Your task to perform on an android device: turn on improve location accuracy Image 0: 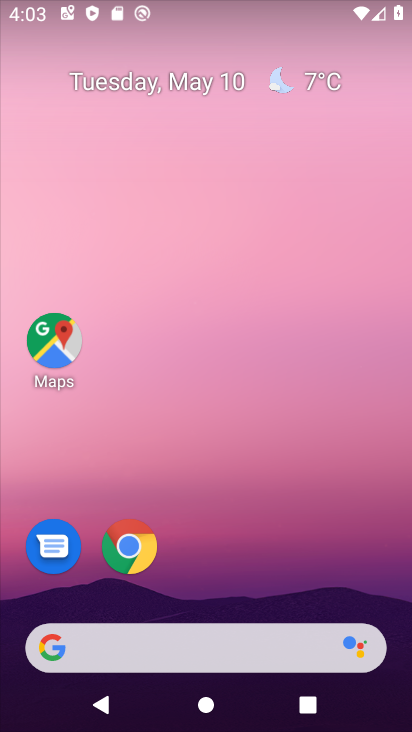
Step 0: drag from (272, 602) to (96, 120)
Your task to perform on an android device: turn on improve location accuracy Image 1: 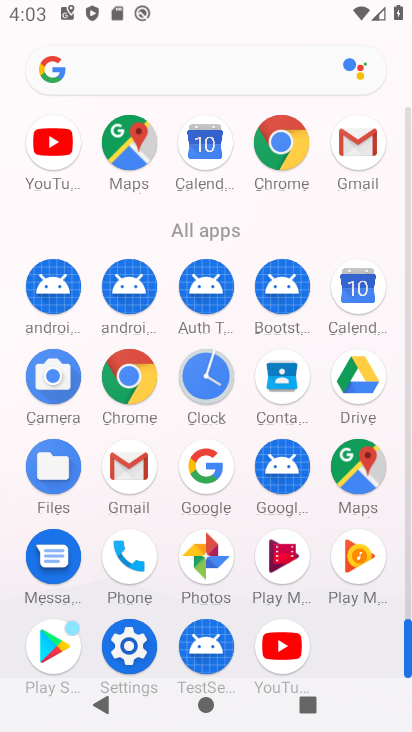
Step 1: drag from (235, 585) to (41, 156)
Your task to perform on an android device: turn on improve location accuracy Image 2: 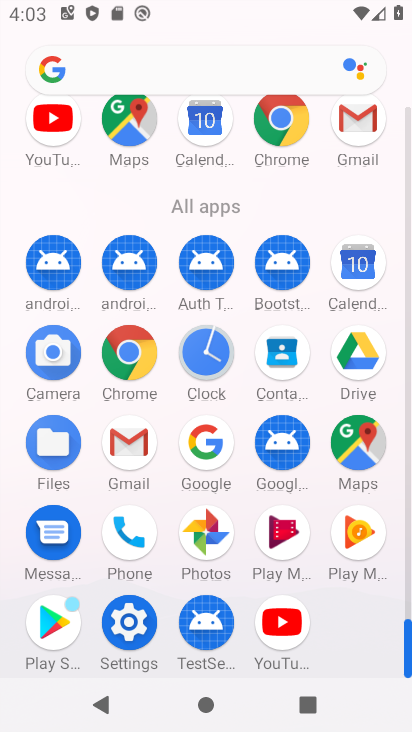
Step 2: drag from (202, 455) to (8, 11)
Your task to perform on an android device: turn on improve location accuracy Image 3: 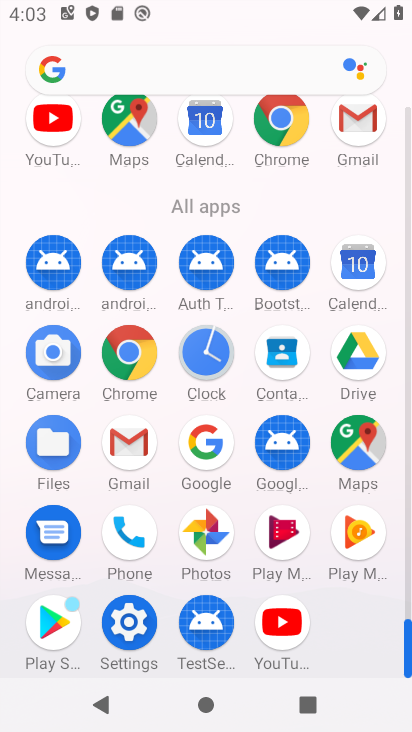
Step 3: click (118, 620)
Your task to perform on an android device: turn on improve location accuracy Image 4: 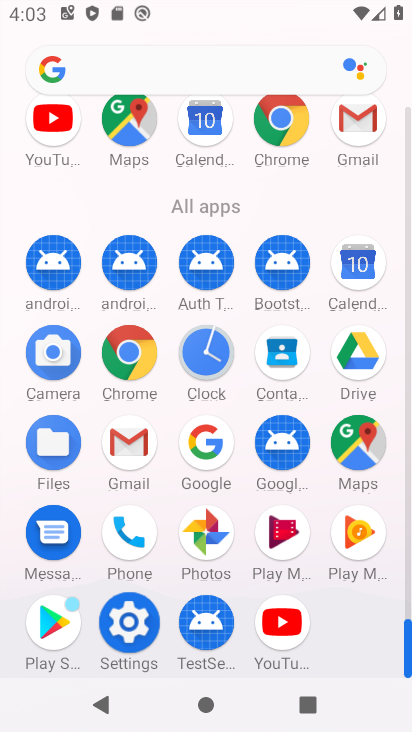
Step 4: click (117, 619)
Your task to perform on an android device: turn on improve location accuracy Image 5: 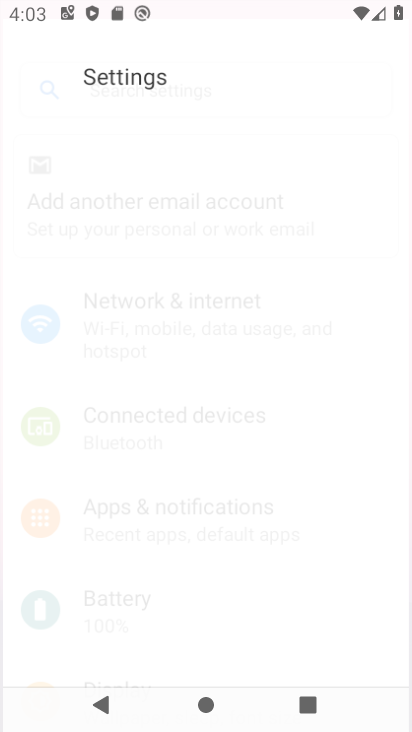
Step 5: click (117, 619)
Your task to perform on an android device: turn on improve location accuracy Image 6: 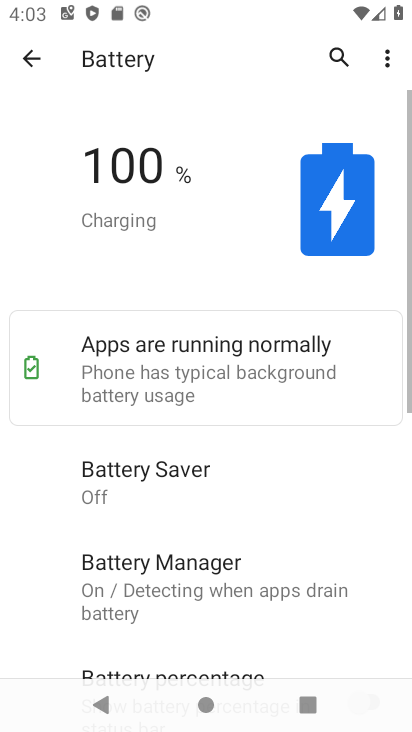
Step 6: click (32, 61)
Your task to perform on an android device: turn on improve location accuracy Image 7: 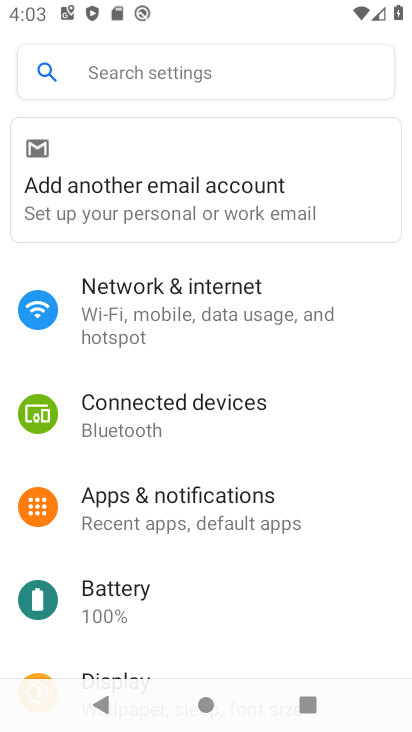
Step 7: drag from (220, 591) to (166, 261)
Your task to perform on an android device: turn on improve location accuracy Image 8: 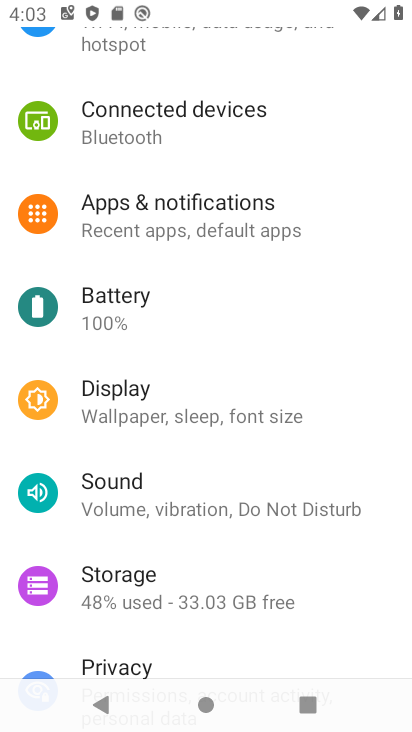
Step 8: drag from (242, 561) to (256, 190)
Your task to perform on an android device: turn on improve location accuracy Image 9: 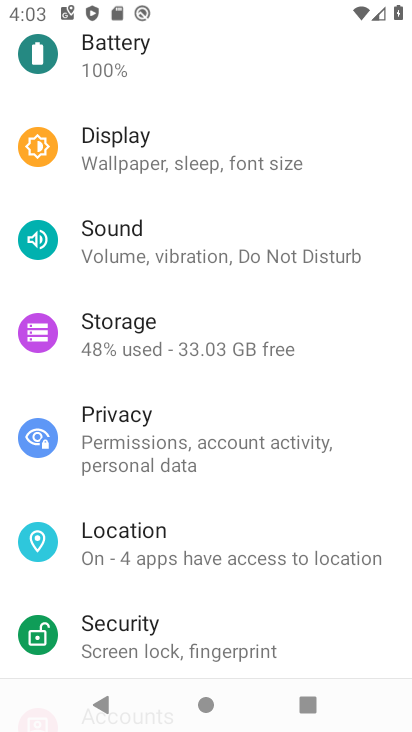
Step 9: click (130, 541)
Your task to perform on an android device: turn on improve location accuracy Image 10: 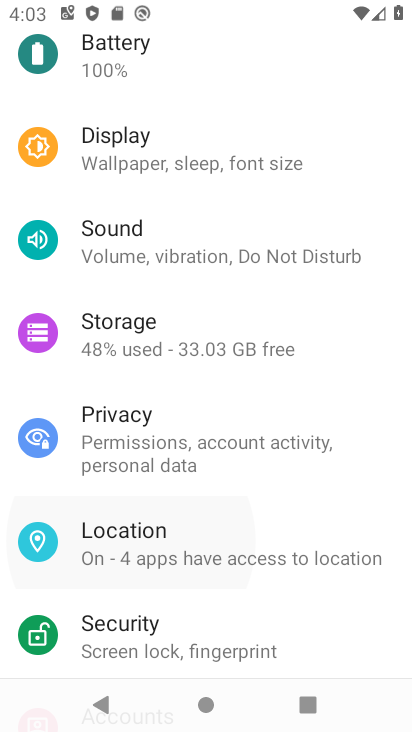
Step 10: click (123, 535)
Your task to perform on an android device: turn on improve location accuracy Image 11: 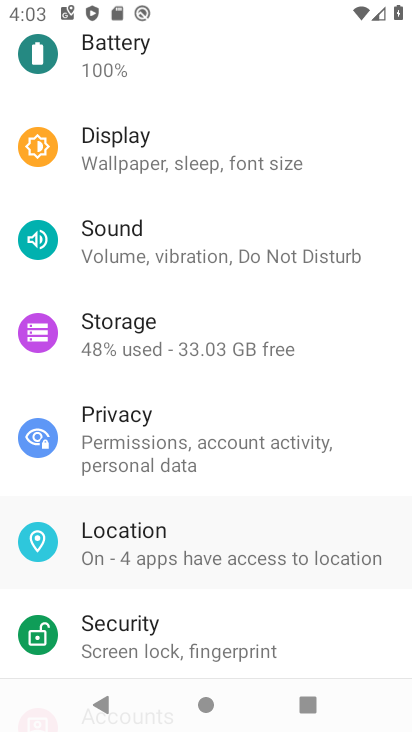
Step 11: click (113, 541)
Your task to perform on an android device: turn on improve location accuracy Image 12: 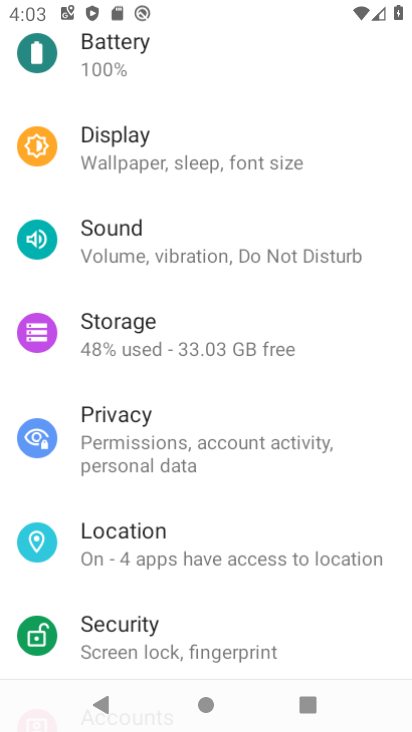
Step 12: click (113, 541)
Your task to perform on an android device: turn on improve location accuracy Image 13: 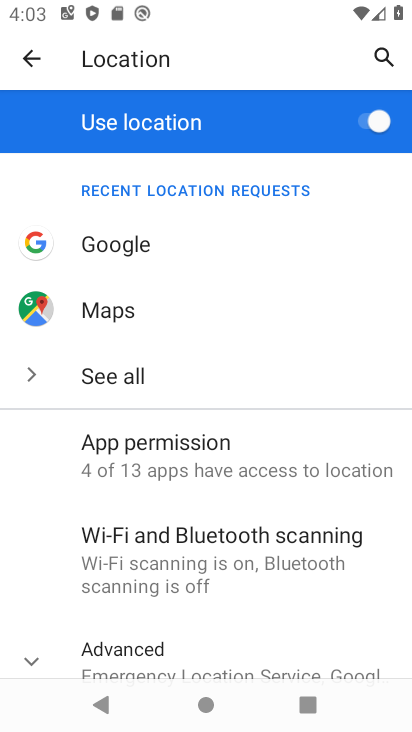
Step 13: drag from (155, 593) to (168, 297)
Your task to perform on an android device: turn on improve location accuracy Image 14: 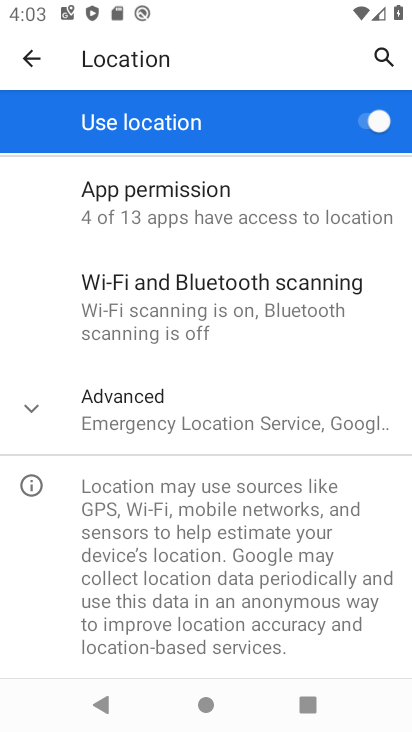
Step 14: click (133, 407)
Your task to perform on an android device: turn on improve location accuracy Image 15: 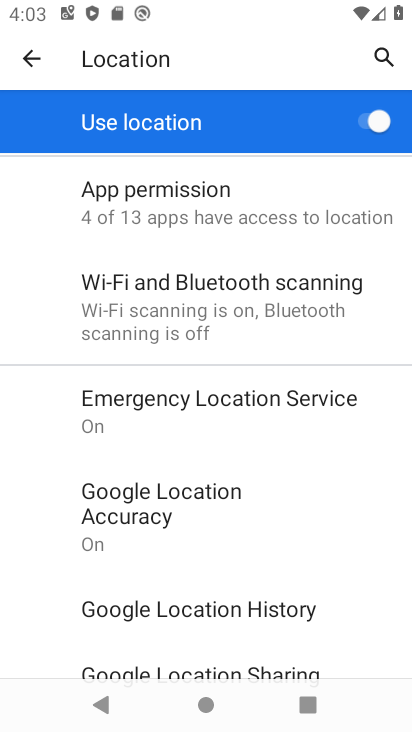
Step 15: click (125, 497)
Your task to perform on an android device: turn on improve location accuracy Image 16: 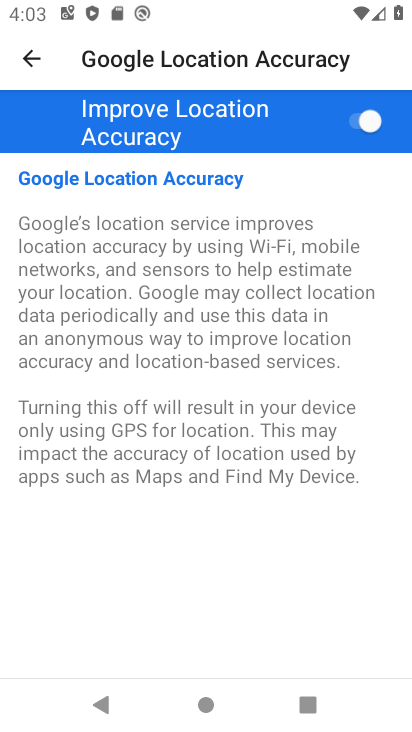
Step 16: task complete